Your task to perform on an android device: install app "The Home Depot" Image 0: 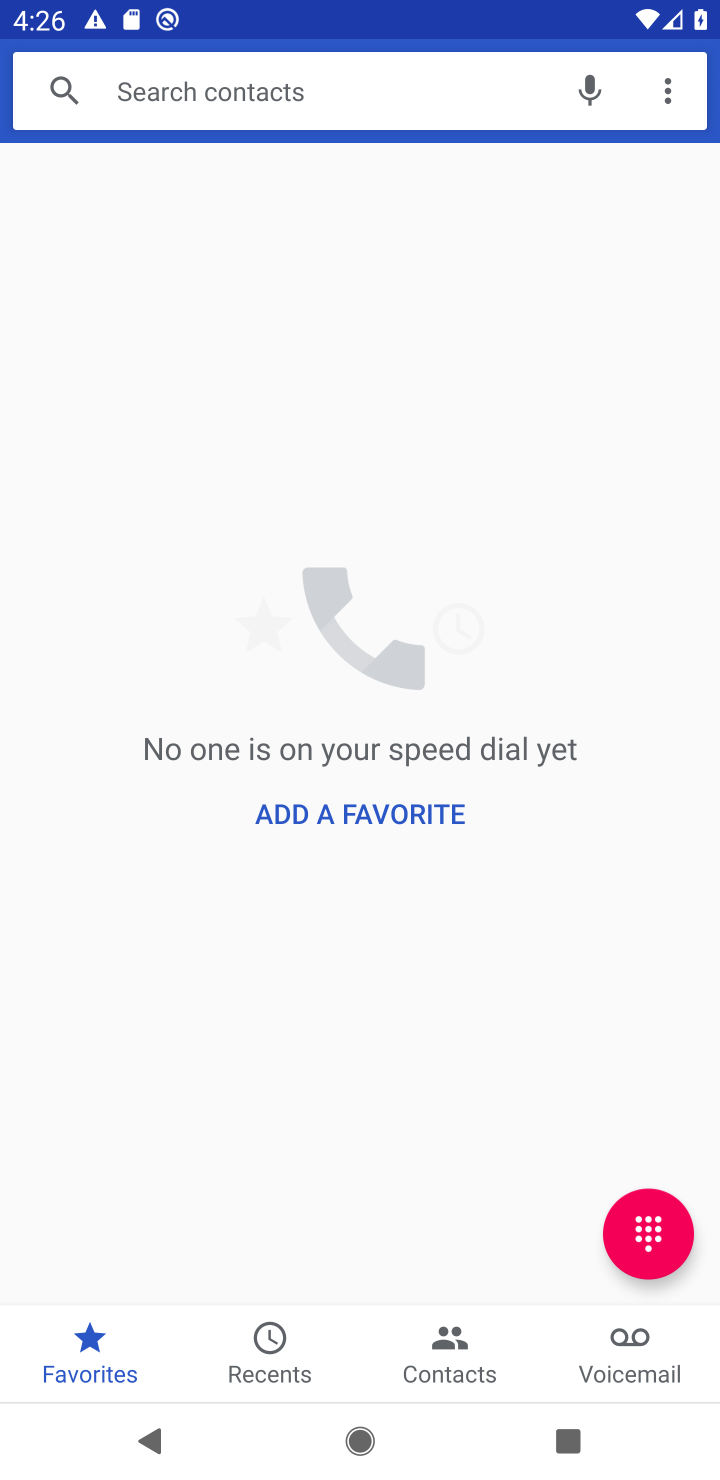
Step 0: press back button
Your task to perform on an android device: install app "The Home Depot" Image 1: 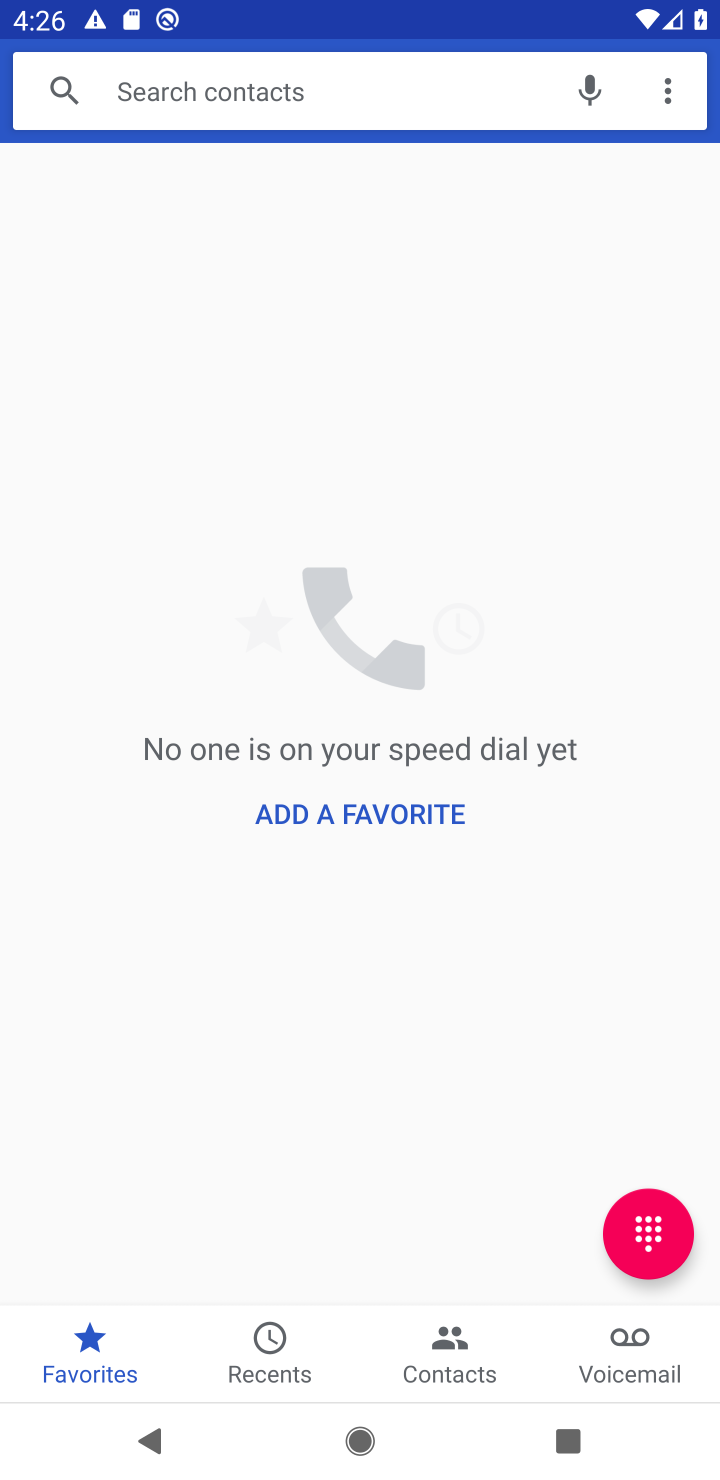
Step 1: press back button
Your task to perform on an android device: install app "The Home Depot" Image 2: 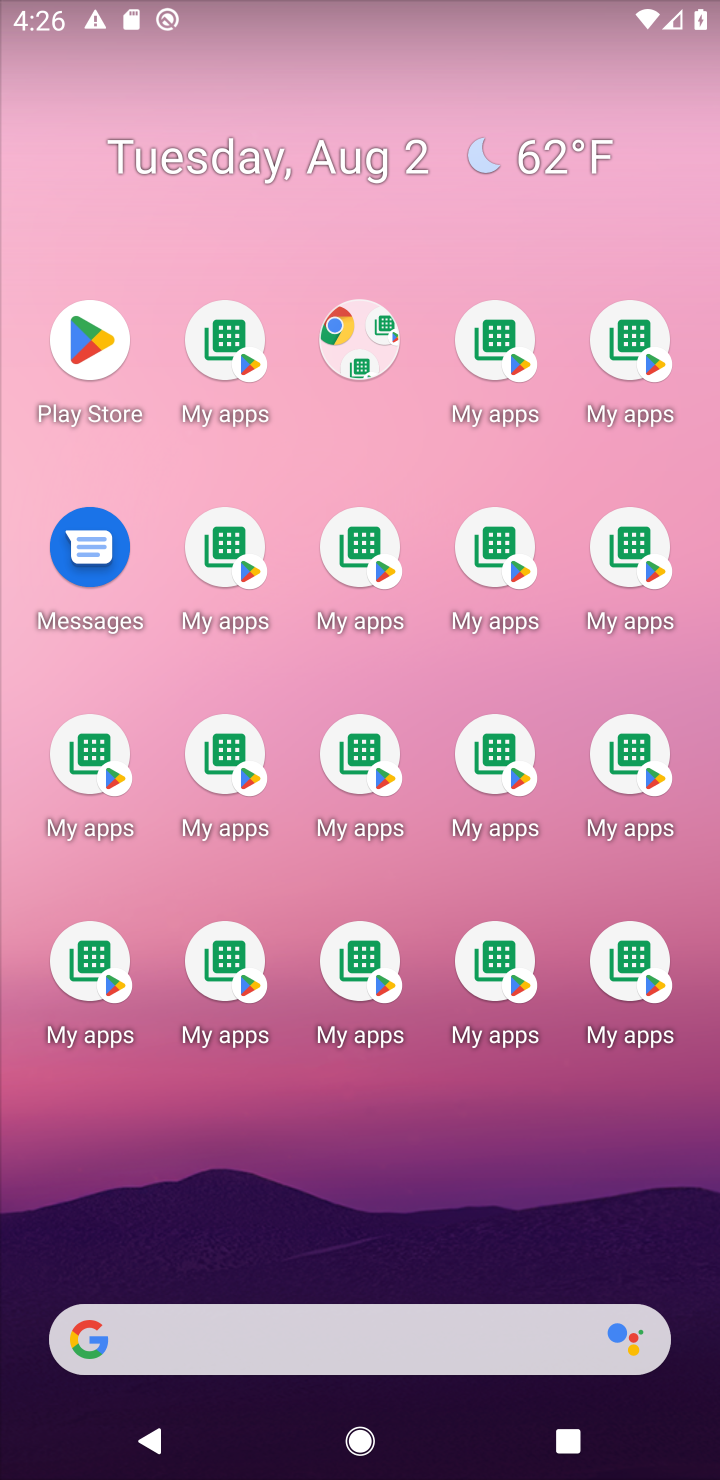
Step 2: press home button
Your task to perform on an android device: install app "The Home Depot" Image 3: 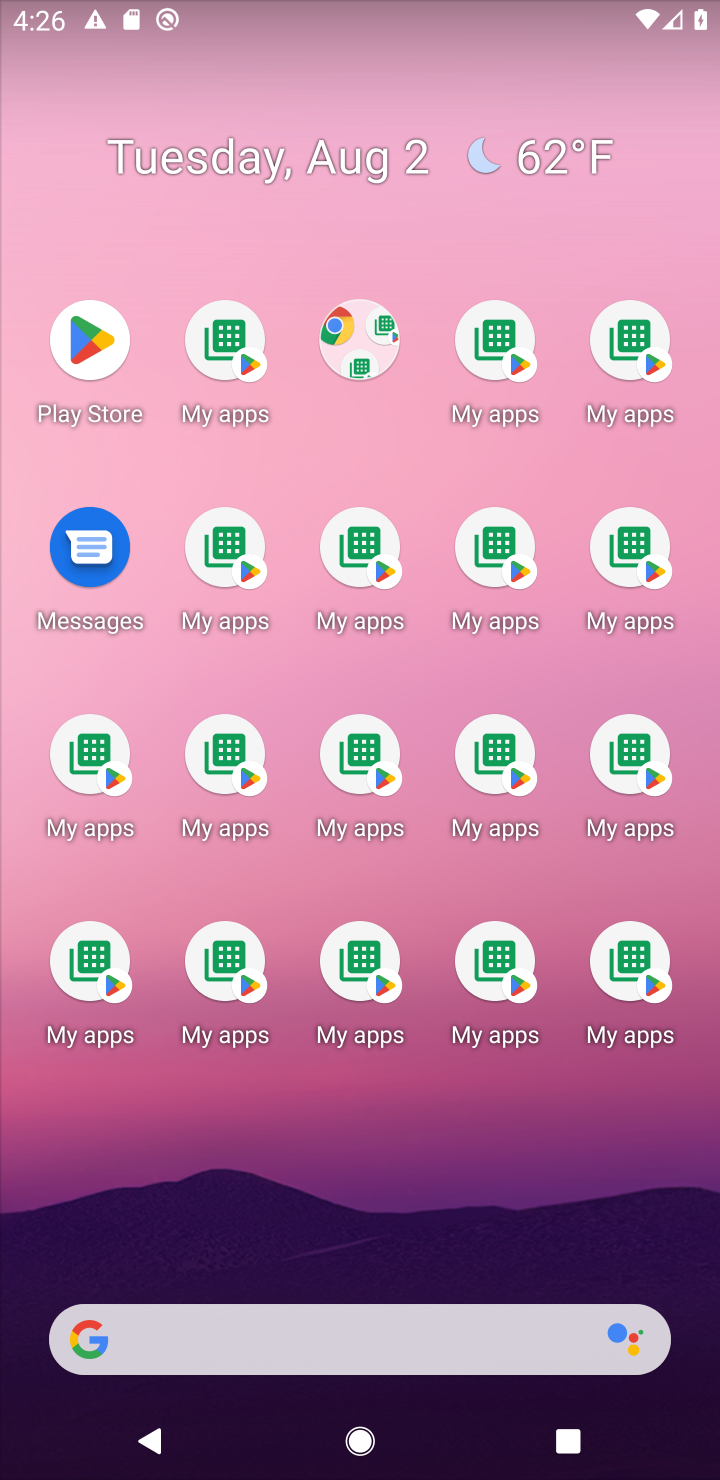
Step 3: press back button
Your task to perform on an android device: install app "The Home Depot" Image 4: 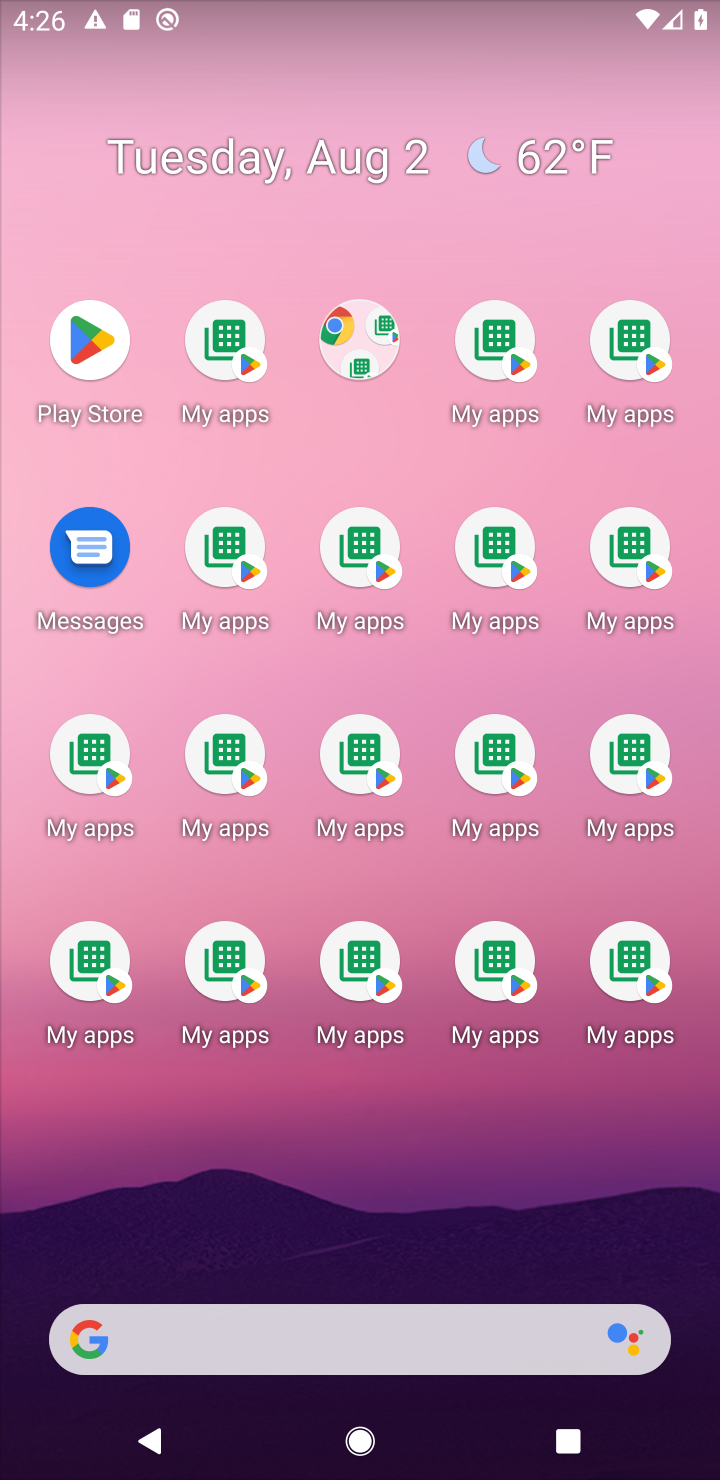
Step 4: drag from (467, 1212) to (310, 427)
Your task to perform on an android device: install app "The Home Depot" Image 5: 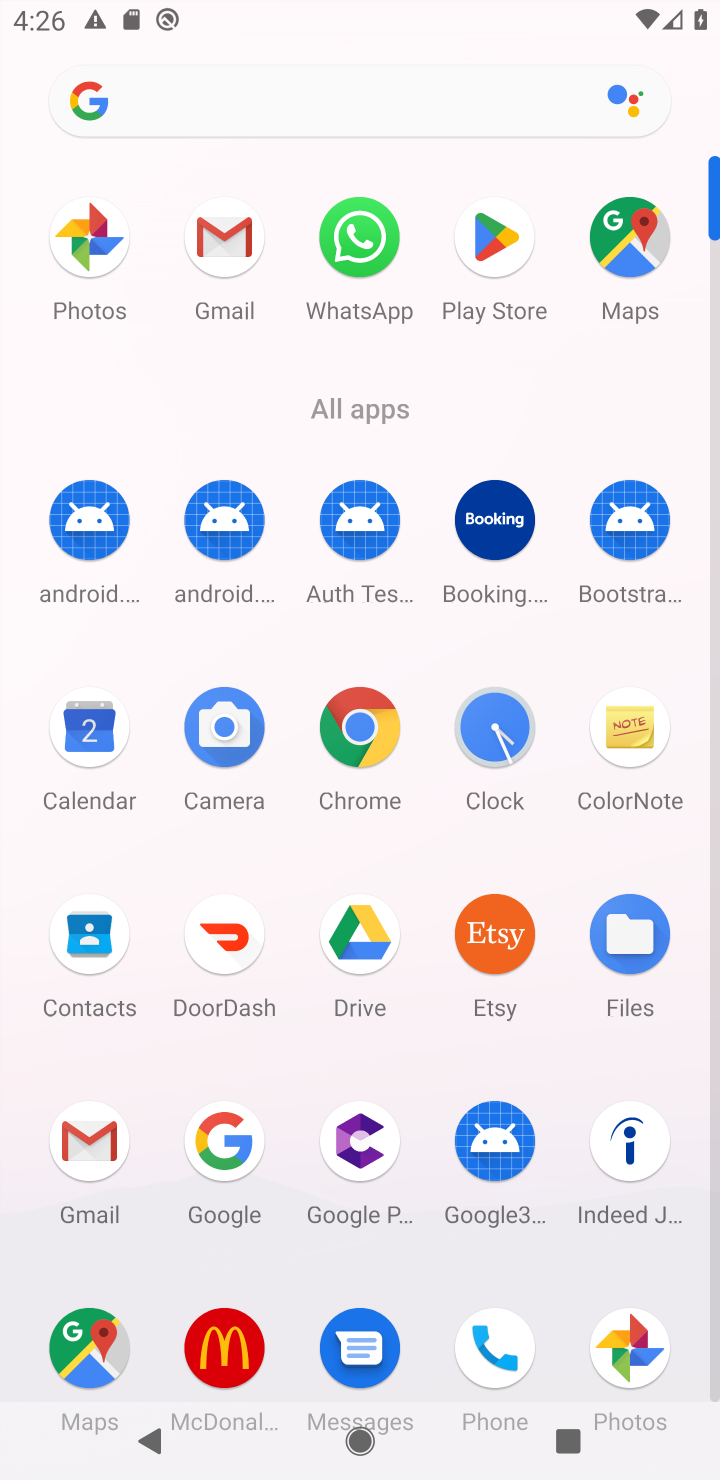
Step 5: click (482, 226)
Your task to perform on an android device: install app "The Home Depot" Image 6: 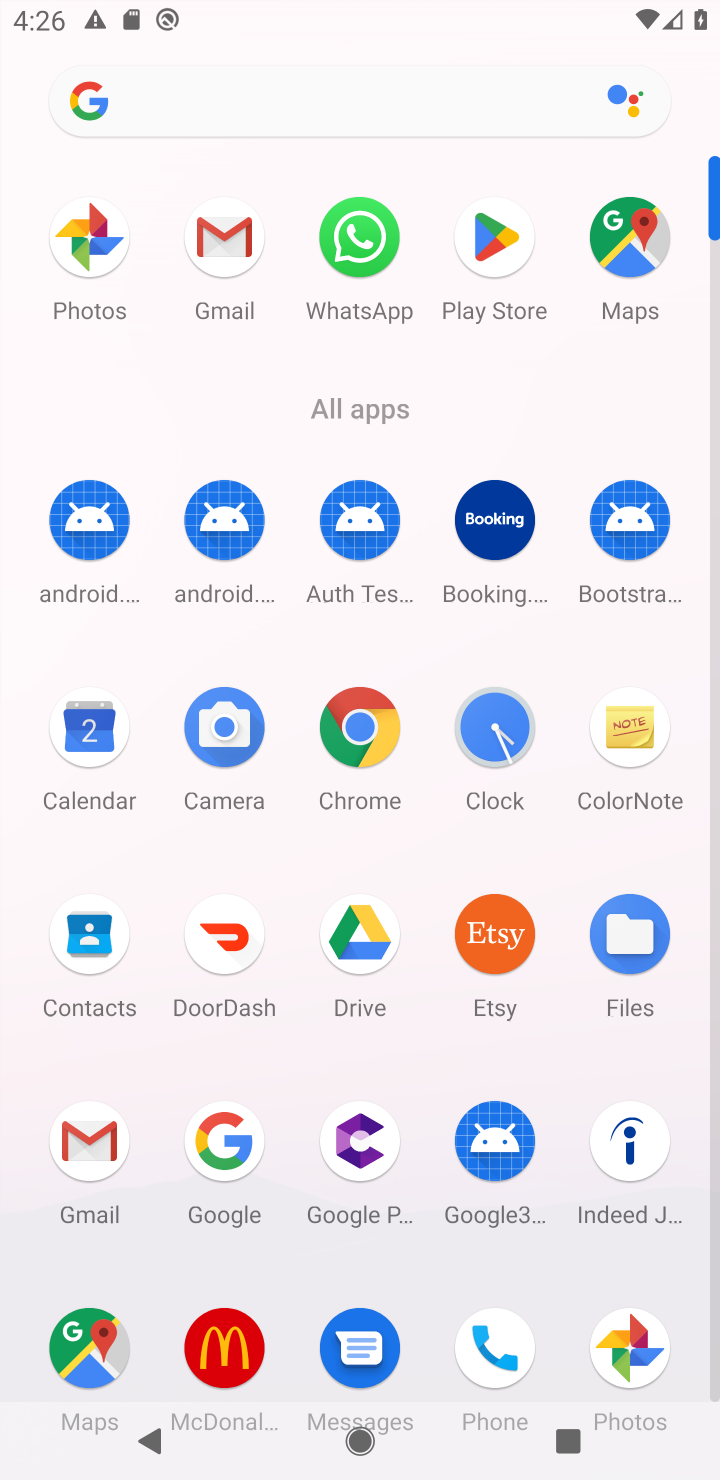
Step 6: click (484, 230)
Your task to perform on an android device: install app "The Home Depot" Image 7: 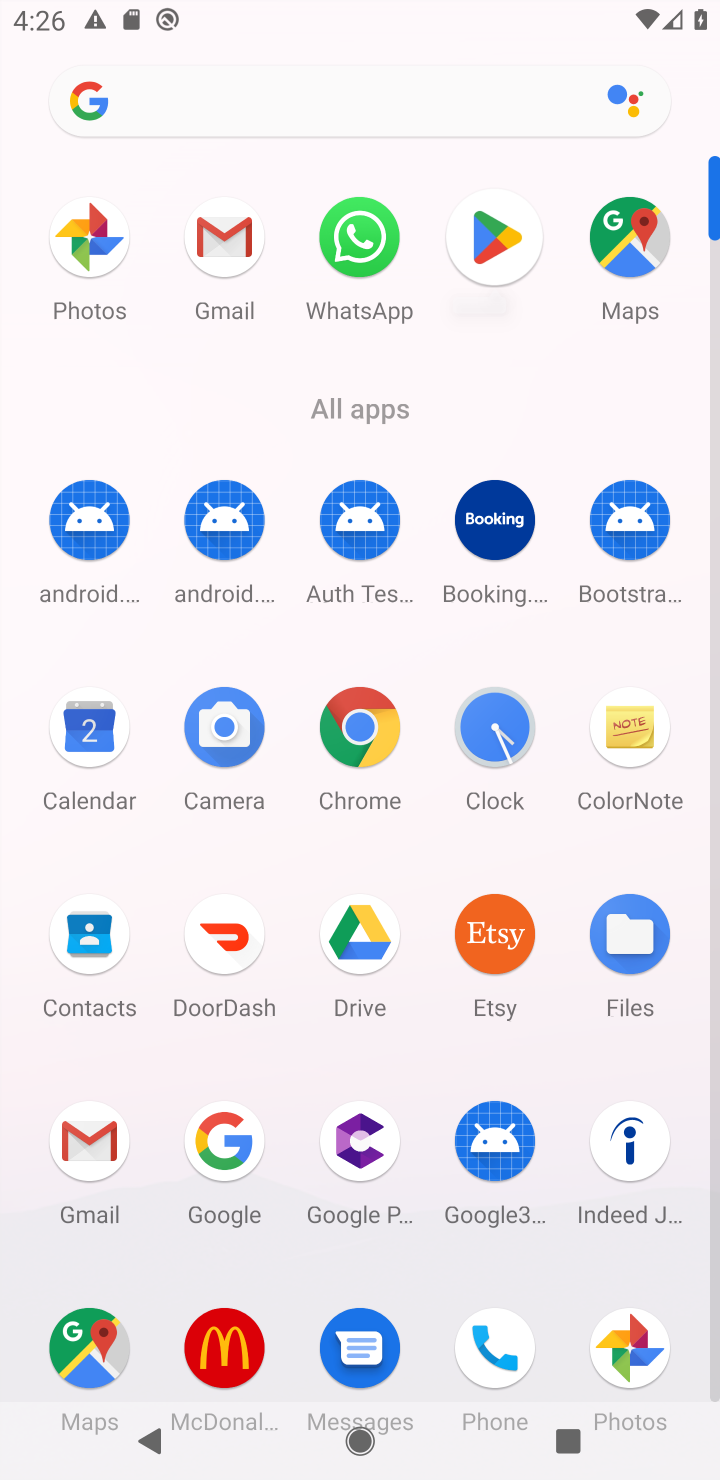
Step 7: click (486, 230)
Your task to perform on an android device: install app "The Home Depot" Image 8: 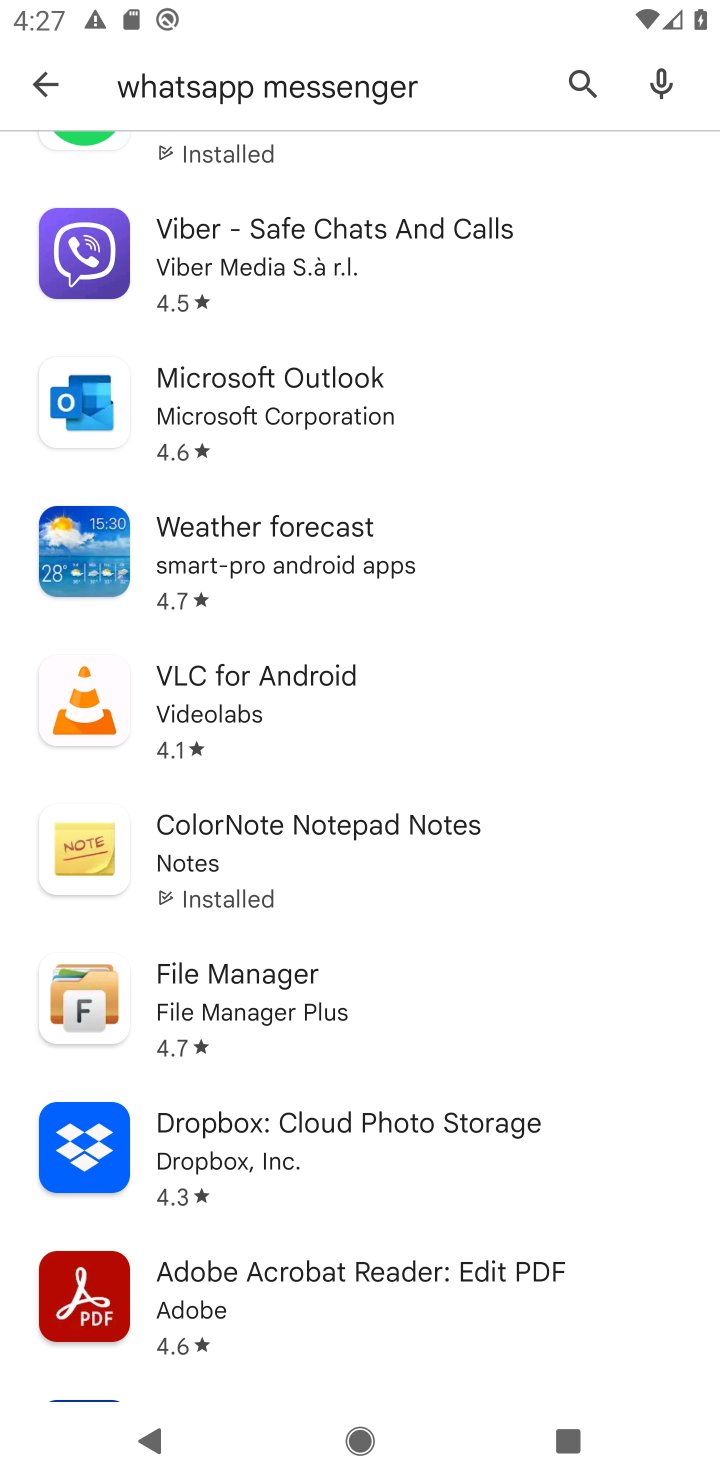
Step 8: drag from (251, 617) to (279, 1091)
Your task to perform on an android device: install app "The Home Depot" Image 9: 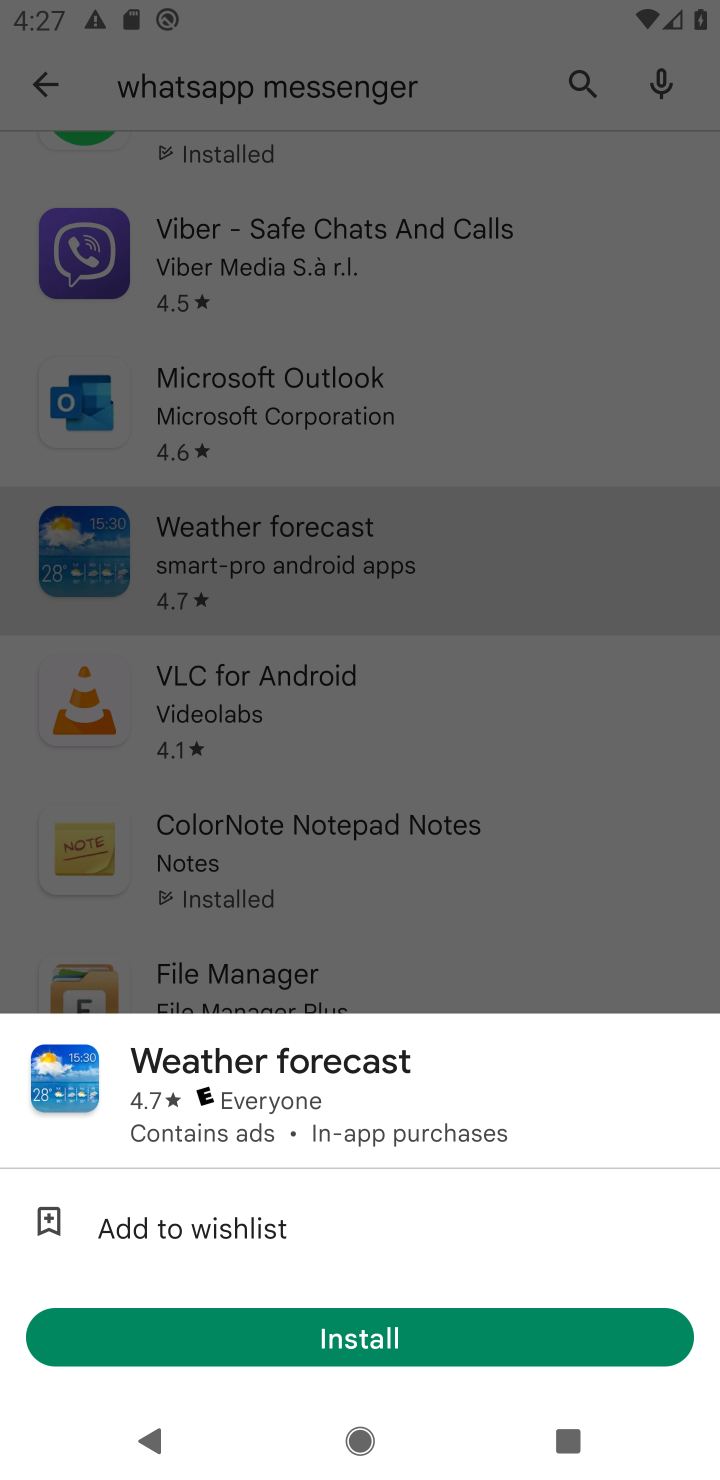
Step 9: drag from (309, 677) to (217, 1236)
Your task to perform on an android device: install app "The Home Depot" Image 10: 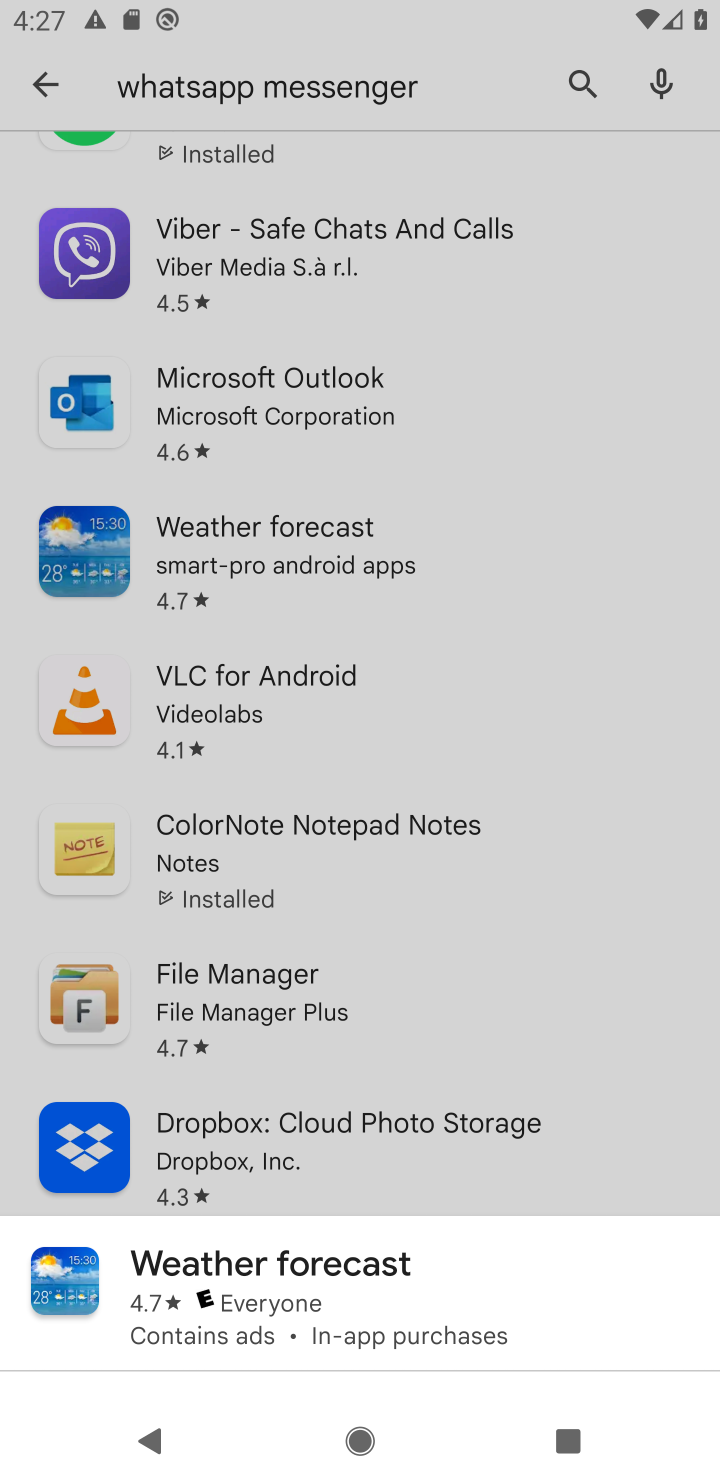
Step 10: click (55, 86)
Your task to perform on an android device: install app "The Home Depot" Image 11: 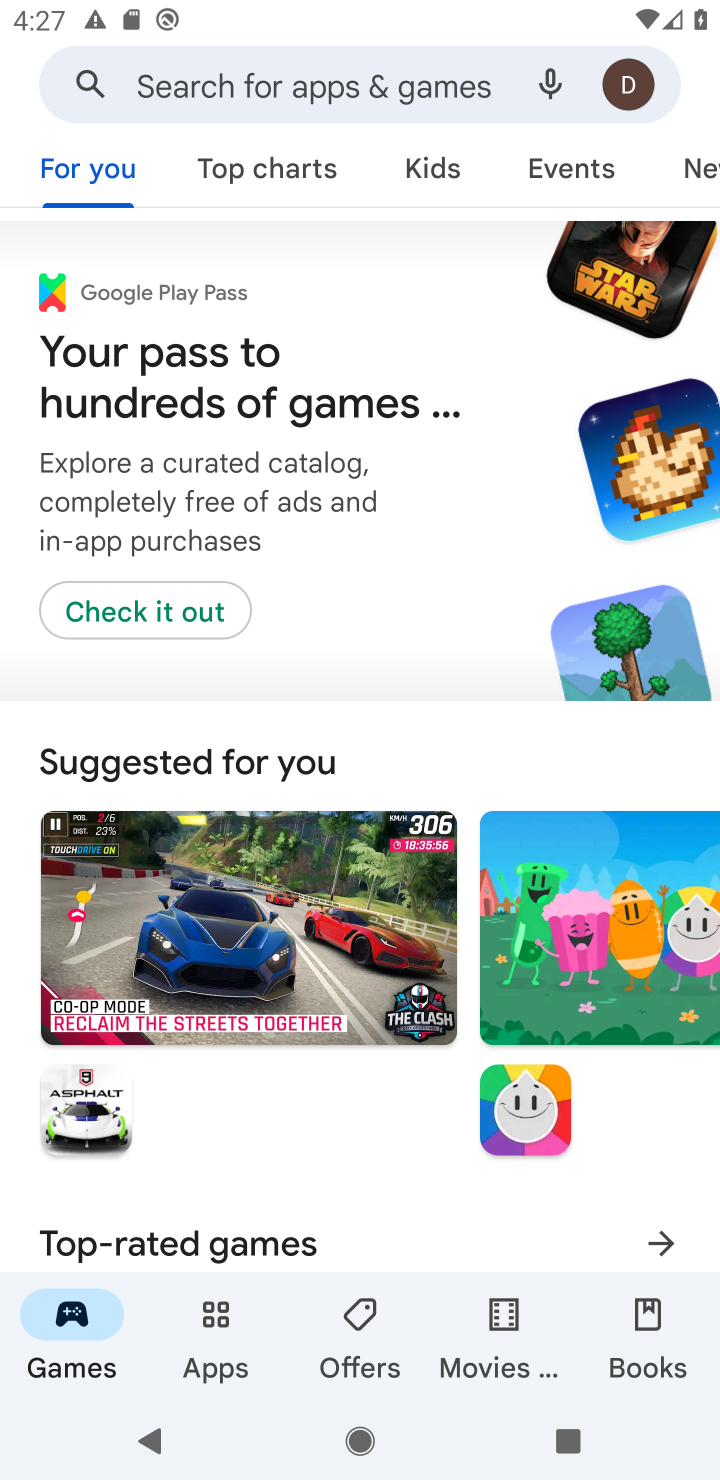
Step 11: drag from (590, 76) to (291, 73)
Your task to perform on an android device: install app "The Home Depot" Image 12: 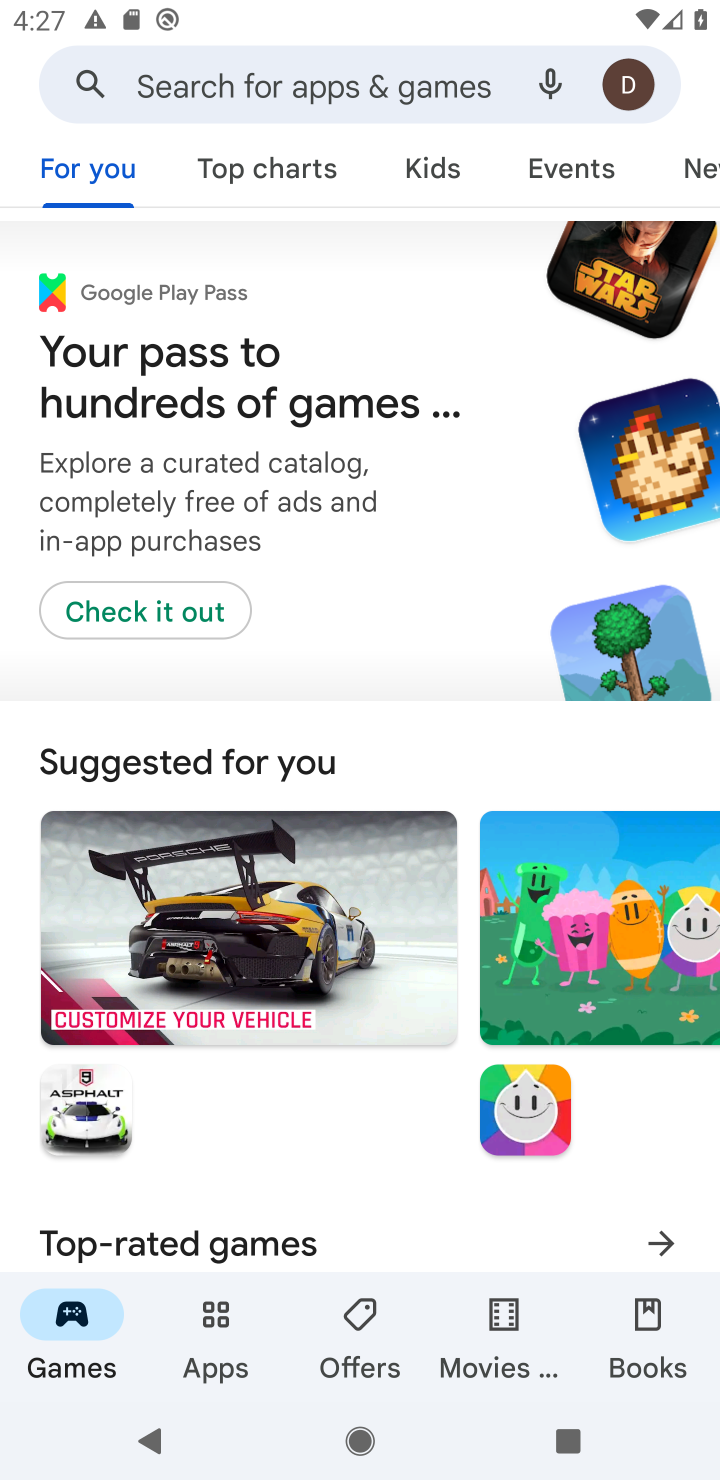
Step 12: click (251, 85)
Your task to perform on an android device: install app "The Home Depot" Image 13: 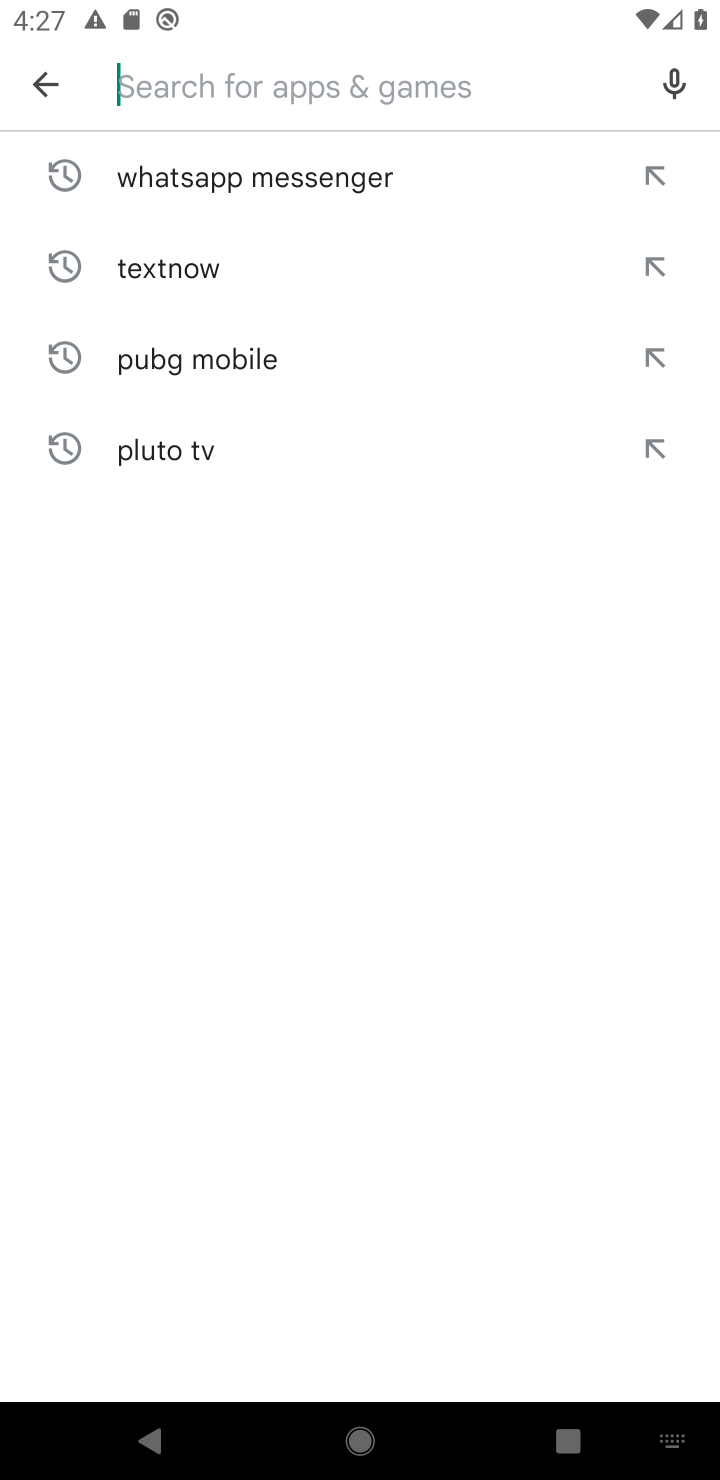
Step 13: type "the home depot"
Your task to perform on an android device: install app "The Home Depot" Image 14: 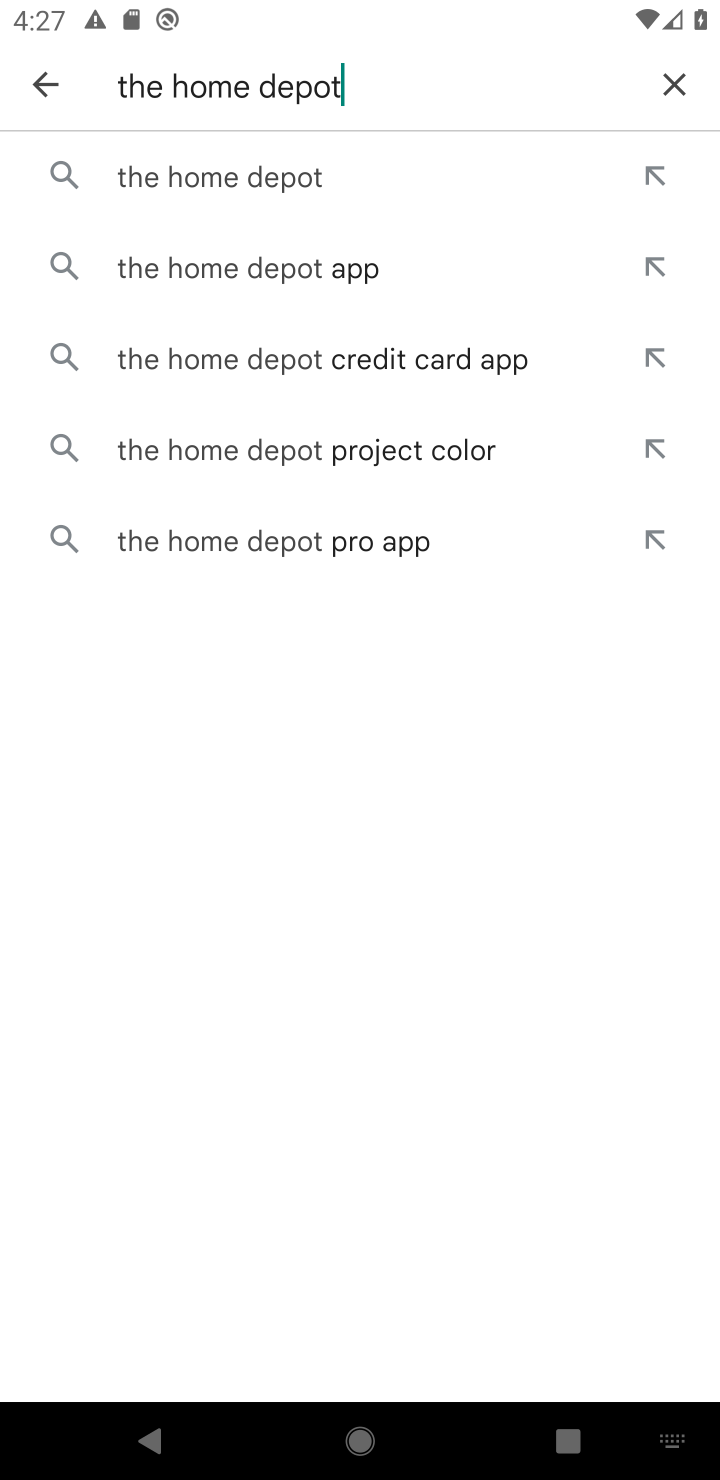
Step 14: click (254, 186)
Your task to perform on an android device: install app "The Home Depot" Image 15: 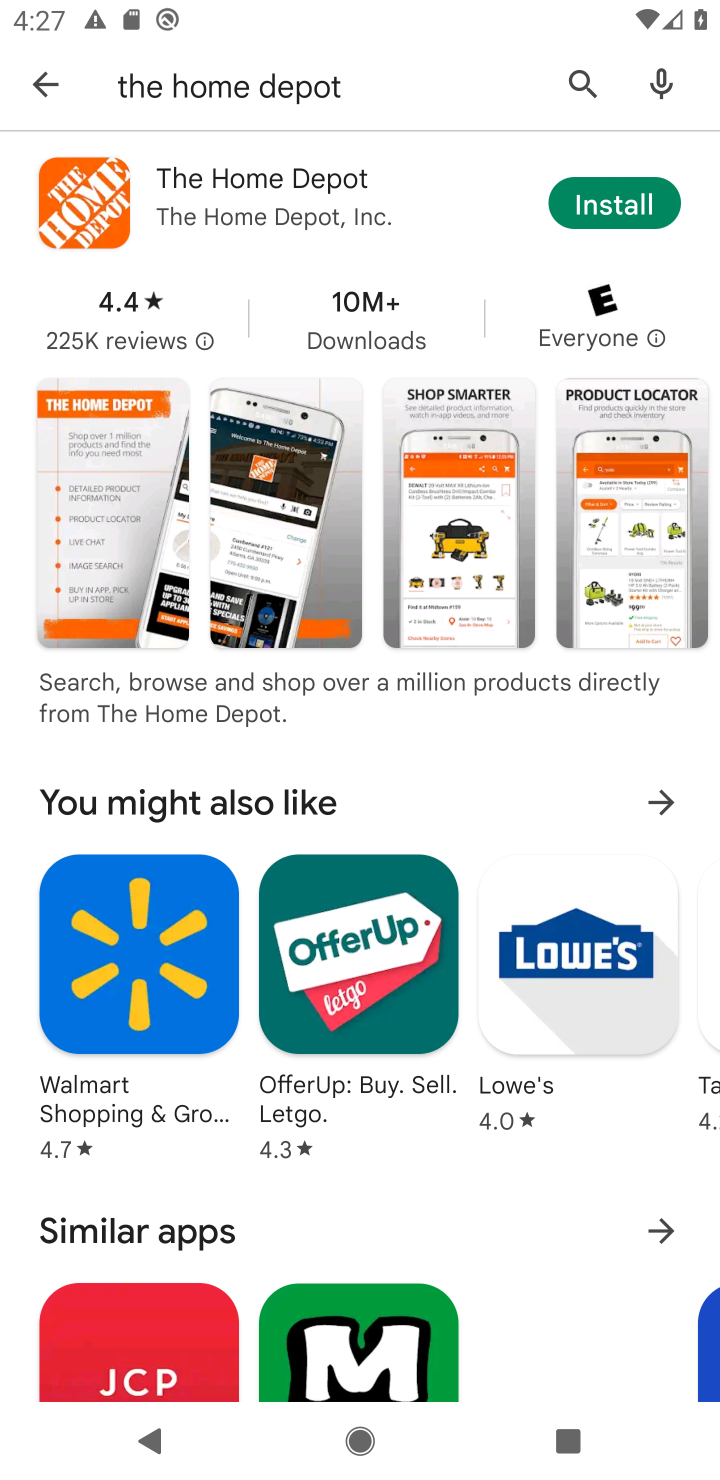
Step 15: click (626, 193)
Your task to perform on an android device: install app "The Home Depot" Image 16: 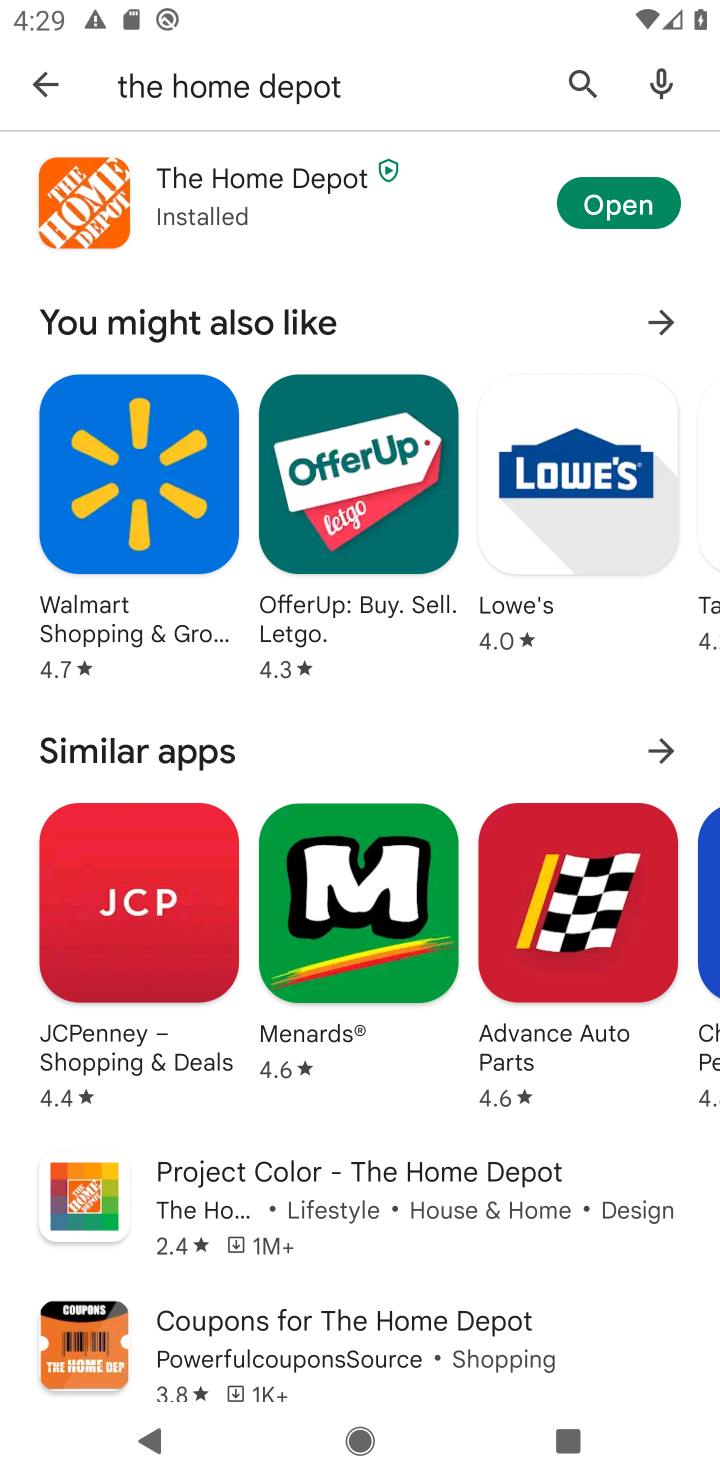
Step 16: click (634, 209)
Your task to perform on an android device: install app "The Home Depot" Image 17: 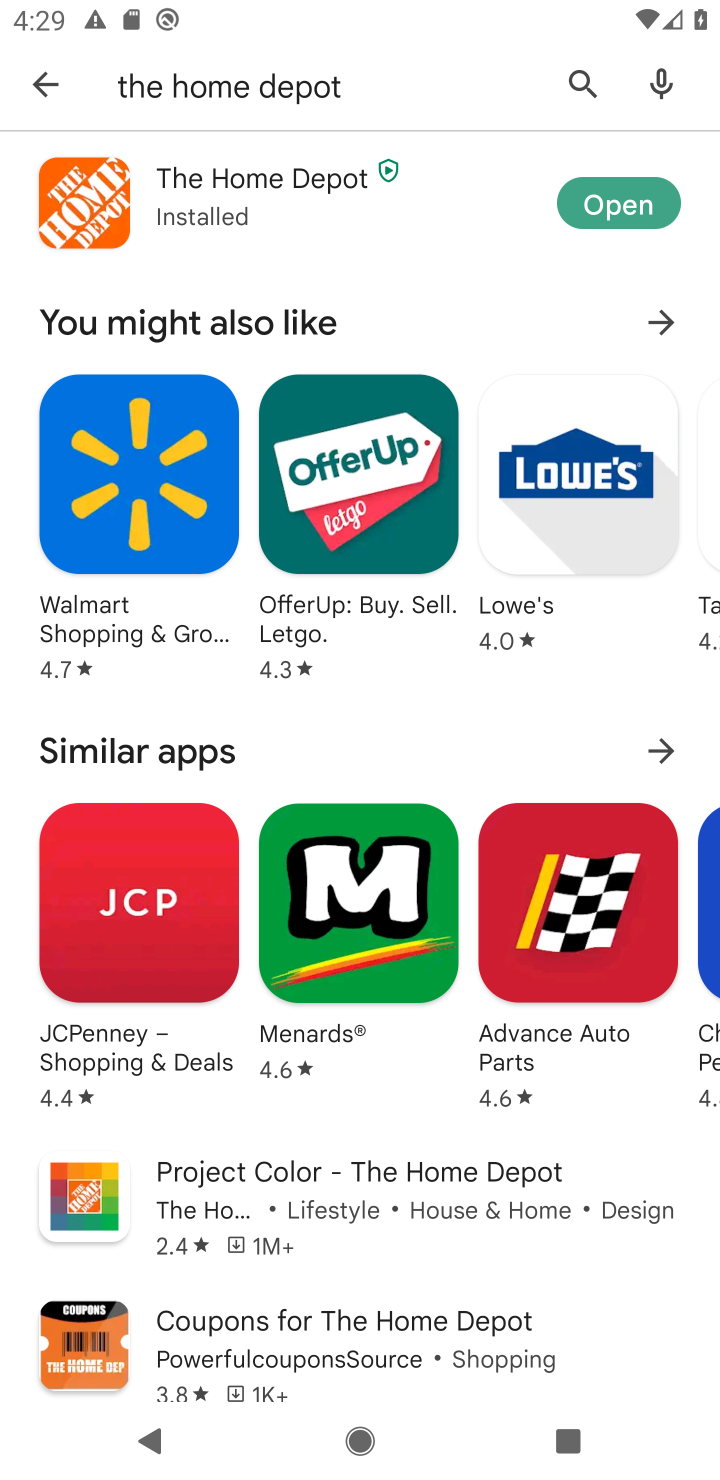
Step 17: click (632, 207)
Your task to perform on an android device: install app "The Home Depot" Image 18: 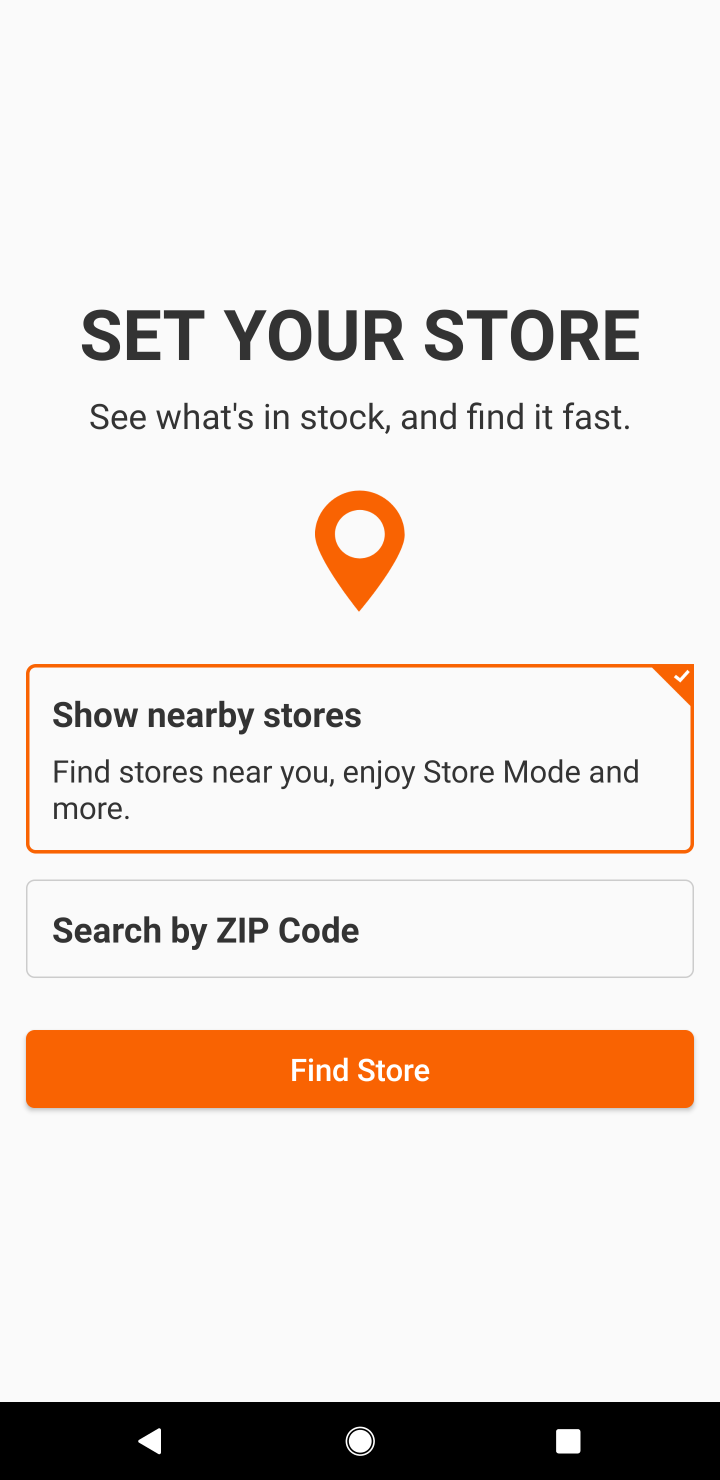
Step 18: task complete